Your task to perform on an android device: Go to network settings Image 0: 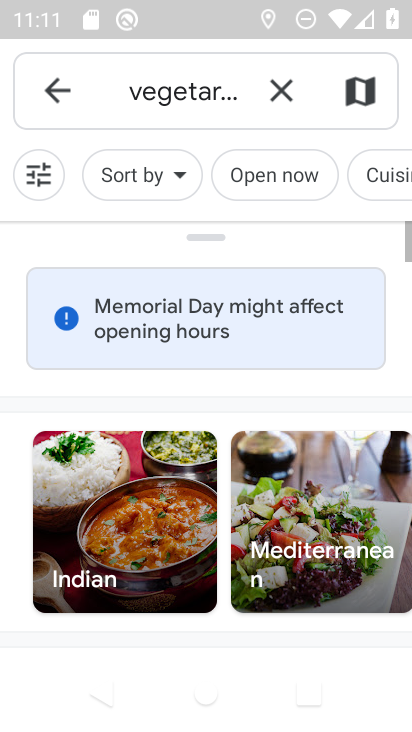
Step 0: press home button
Your task to perform on an android device: Go to network settings Image 1: 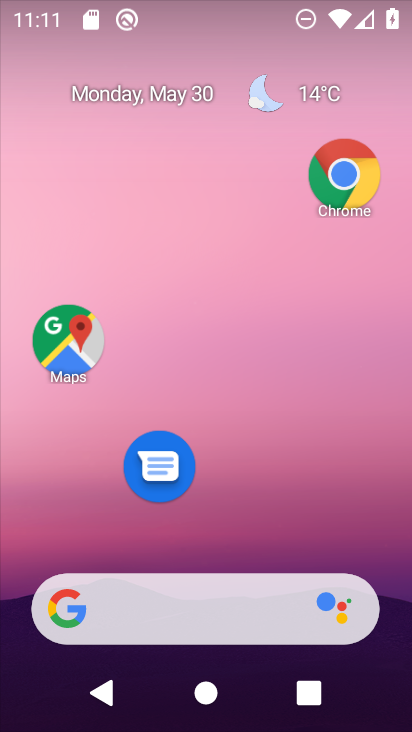
Step 1: drag from (193, 321) to (158, 71)
Your task to perform on an android device: Go to network settings Image 2: 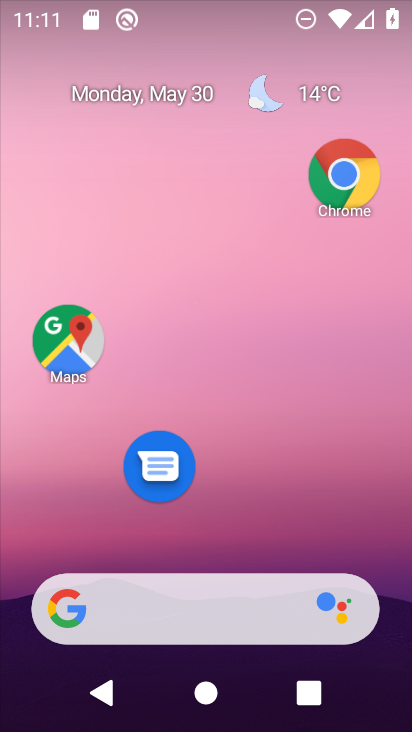
Step 2: drag from (272, 692) to (199, 108)
Your task to perform on an android device: Go to network settings Image 3: 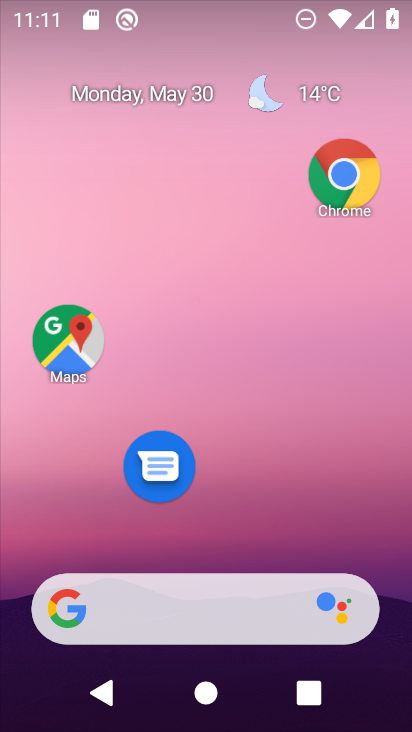
Step 3: drag from (258, 689) to (226, 200)
Your task to perform on an android device: Go to network settings Image 4: 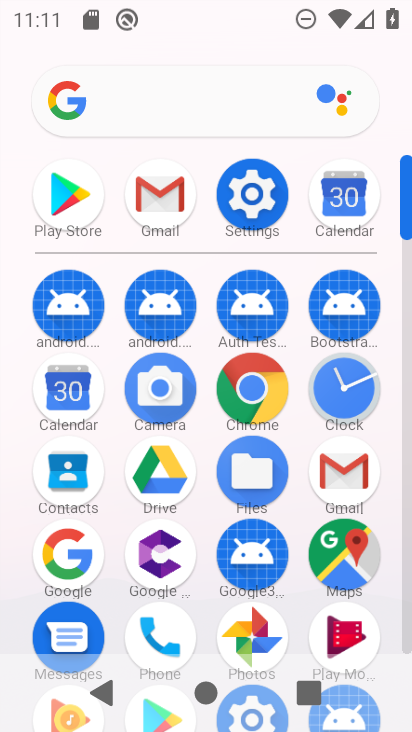
Step 4: click (262, 208)
Your task to perform on an android device: Go to network settings Image 5: 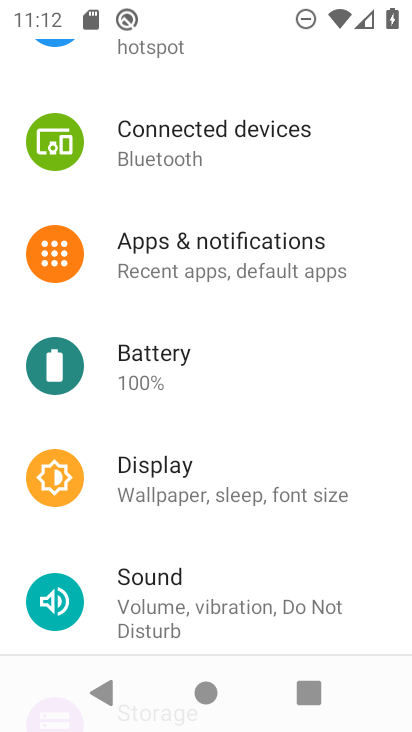
Step 5: drag from (249, 156) to (256, 521)
Your task to perform on an android device: Go to network settings Image 6: 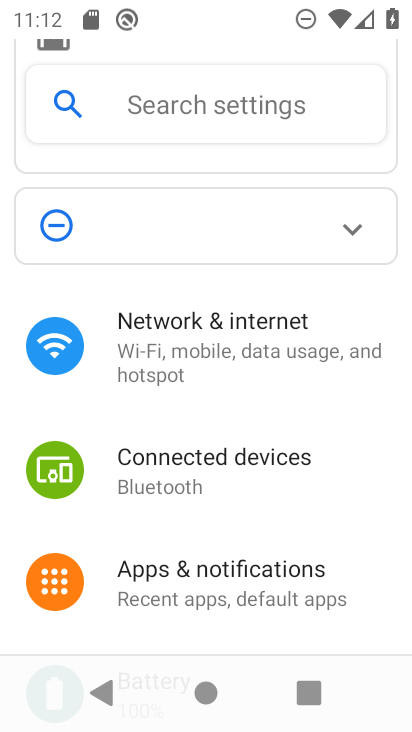
Step 6: click (263, 364)
Your task to perform on an android device: Go to network settings Image 7: 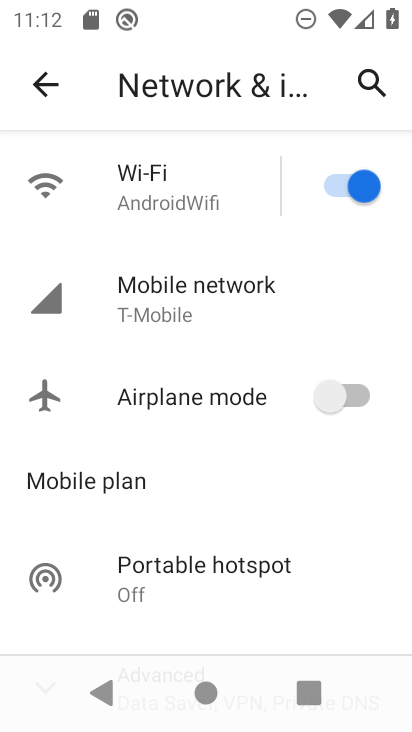
Step 7: task complete